Your task to perform on an android device: Open sound settings Image 0: 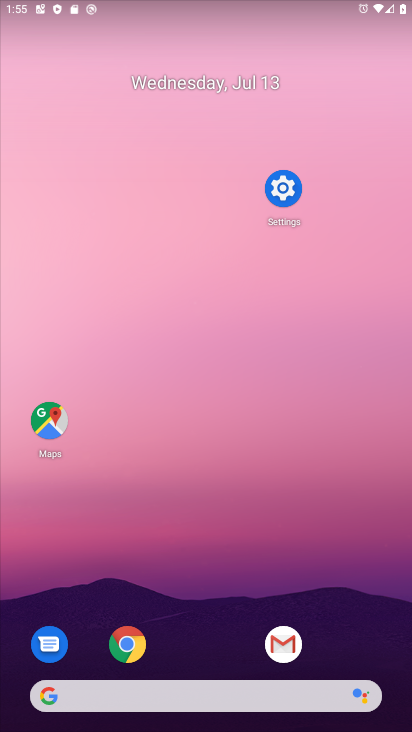
Step 0: press home button
Your task to perform on an android device: Open sound settings Image 1: 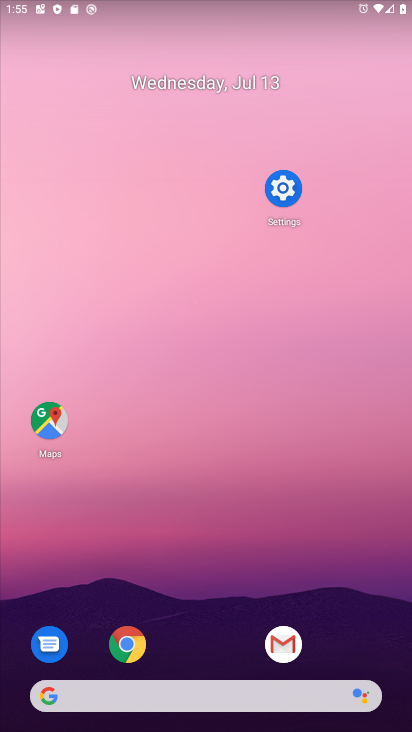
Step 1: click (296, 175)
Your task to perform on an android device: Open sound settings Image 2: 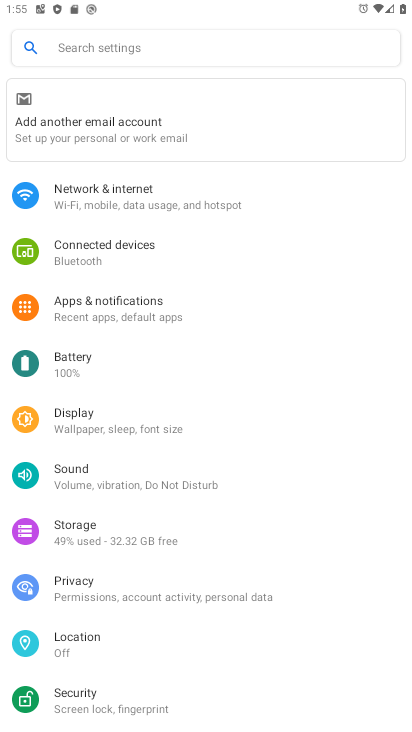
Step 2: click (84, 471)
Your task to perform on an android device: Open sound settings Image 3: 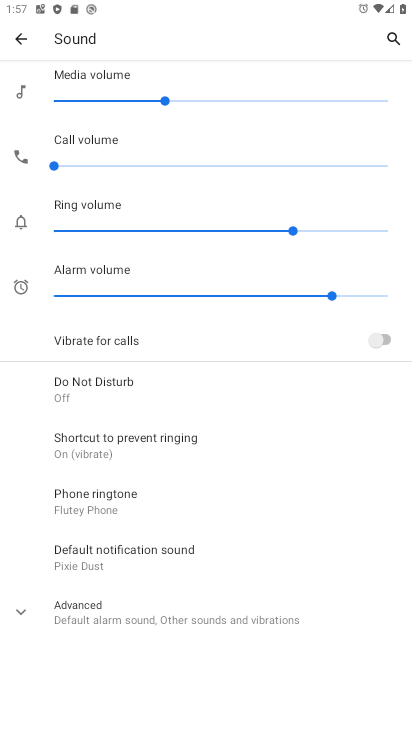
Step 3: task complete